Your task to perform on an android device: toggle location history Image 0: 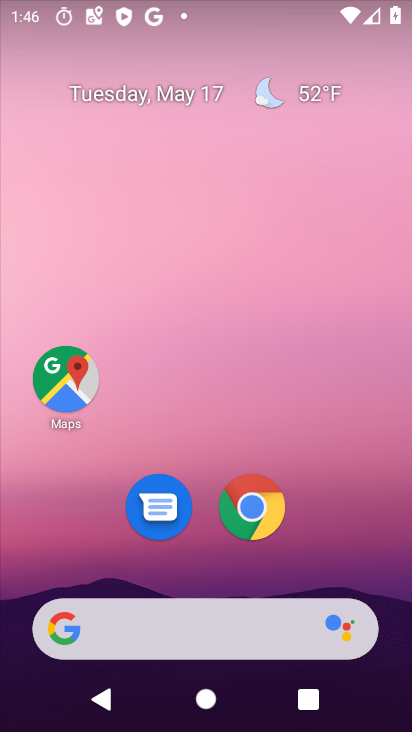
Step 0: drag from (205, 561) to (221, 135)
Your task to perform on an android device: toggle location history Image 1: 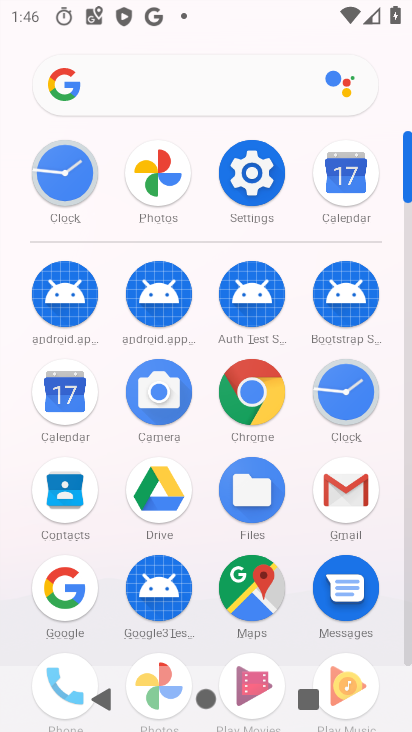
Step 1: click (248, 184)
Your task to perform on an android device: toggle location history Image 2: 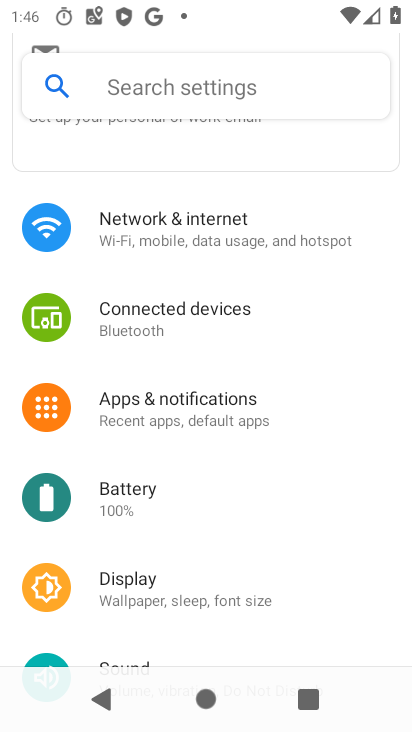
Step 2: drag from (182, 424) to (188, 82)
Your task to perform on an android device: toggle location history Image 3: 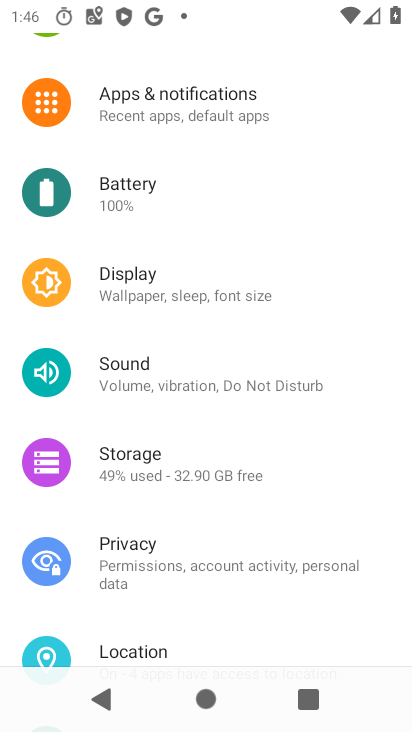
Step 3: click (133, 637)
Your task to perform on an android device: toggle location history Image 4: 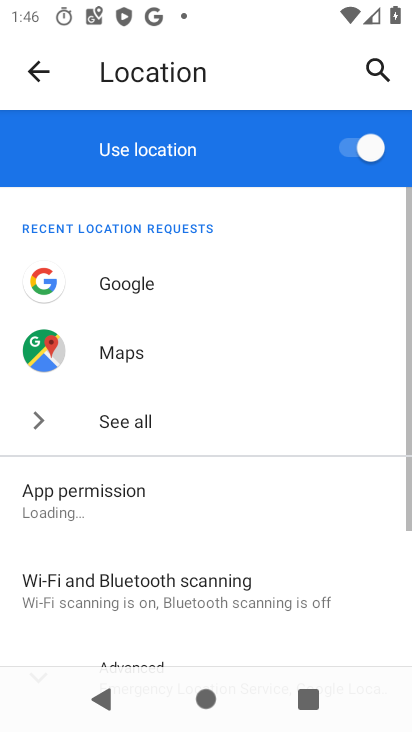
Step 4: drag from (131, 617) to (161, 232)
Your task to perform on an android device: toggle location history Image 5: 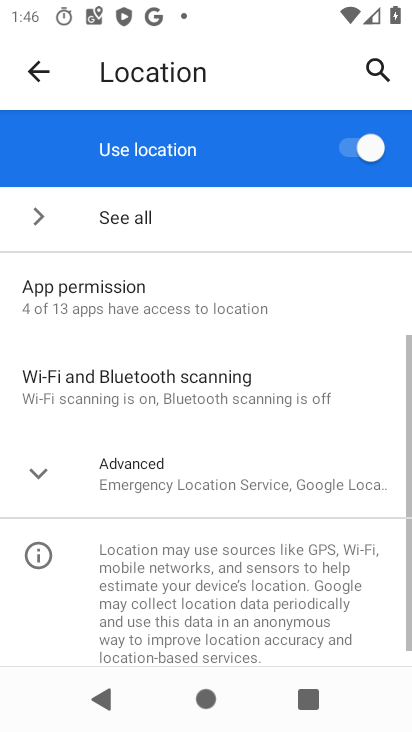
Step 5: click (146, 472)
Your task to perform on an android device: toggle location history Image 6: 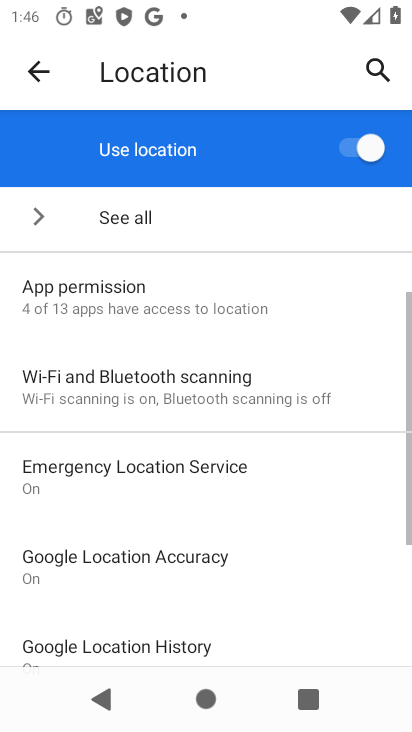
Step 6: drag from (205, 596) to (202, 405)
Your task to perform on an android device: toggle location history Image 7: 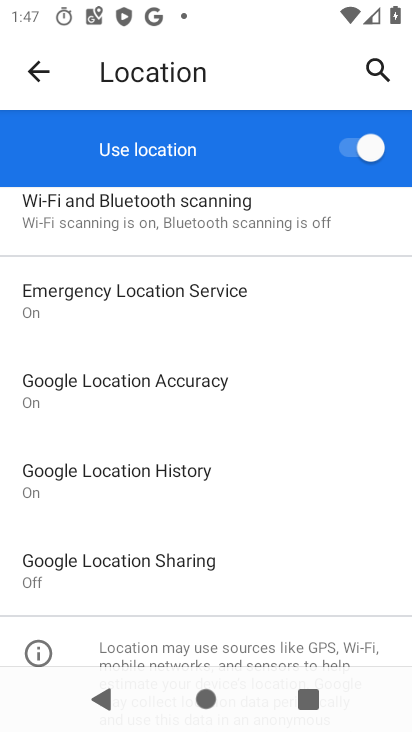
Step 7: click (123, 496)
Your task to perform on an android device: toggle location history Image 8: 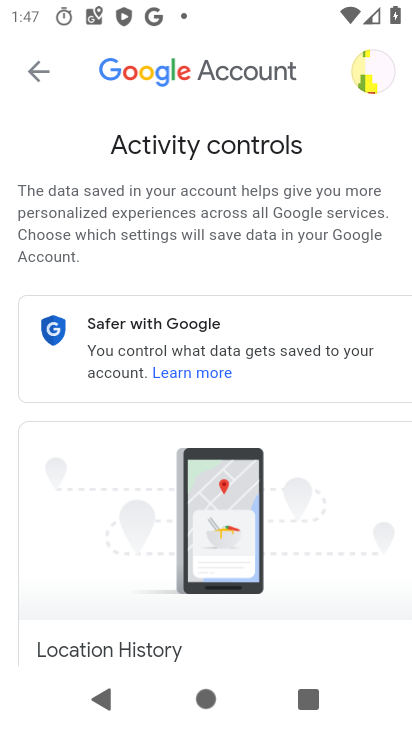
Step 8: drag from (252, 603) to (329, 230)
Your task to perform on an android device: toggle location history Image 9: 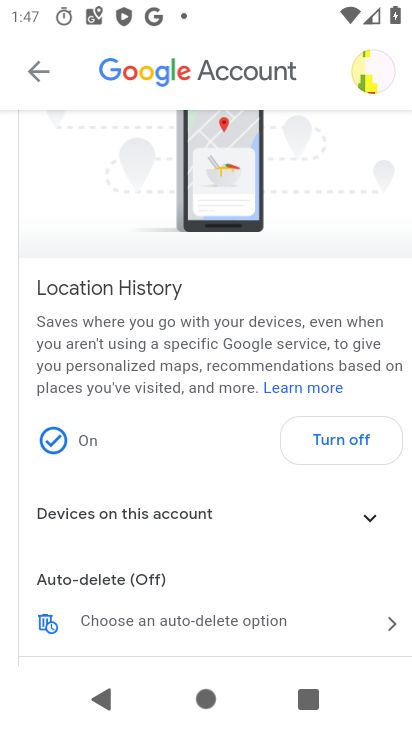
Step 9: click (346, 439)
Your task to perform on an android device: toggle location history Image 10: 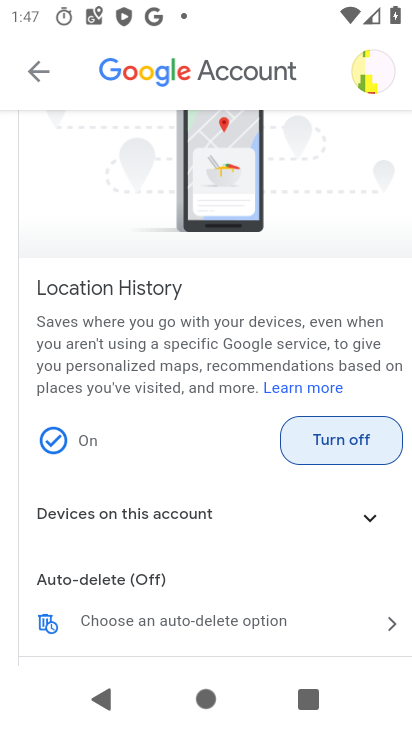
Step 10: click (346, 439)
Your task to perform on an android device: toggle location history Image 11: 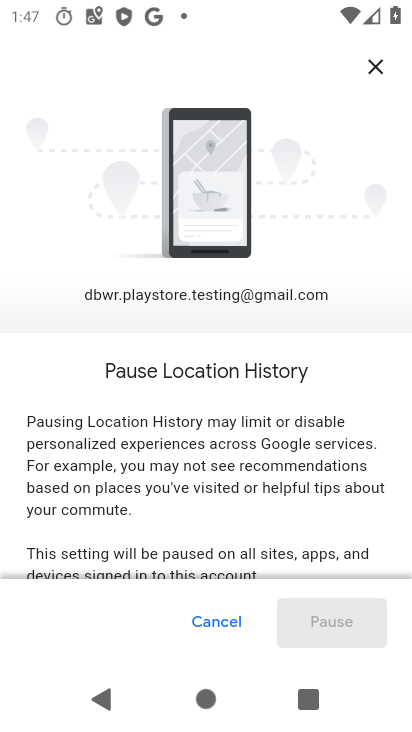
Step 11: drag from (342, 496) to (311, 16)
Your task to perform on an android device: toggle location history Image 12: 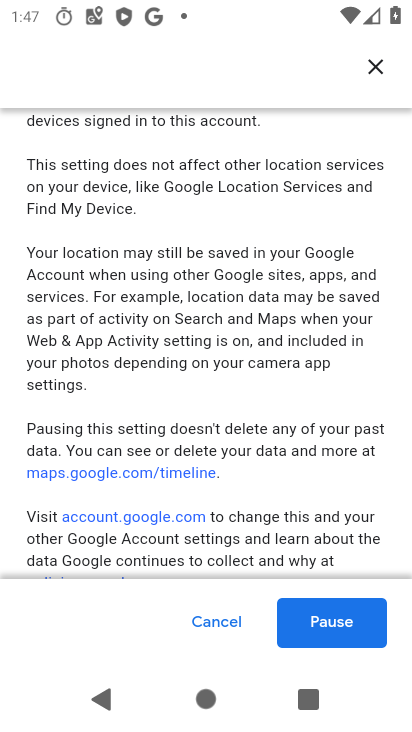
Step 12: click (319, 619)
Your task to perform on an android device: toggle location history Image 13: 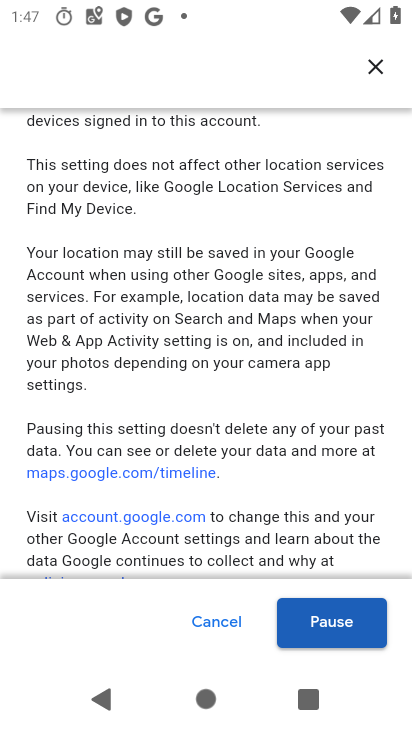
Step 13: click (319, 619)
Your task to perform on an android device: toggle location history Image 14: 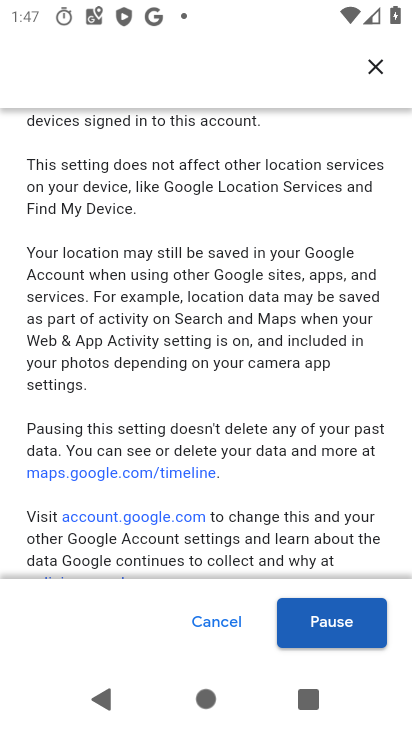
Step 14: click (349, 624)
Your task to perform on an android device: toggle location history Image 15: 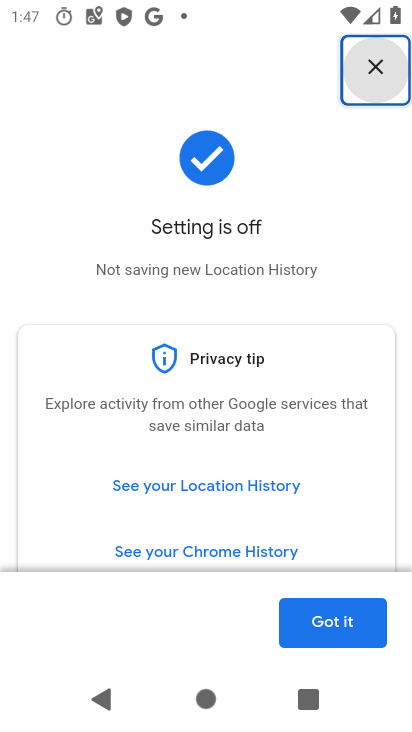
Step 15: click (336, 615)
Your task to perform on an android device: toggle location history Image 16: 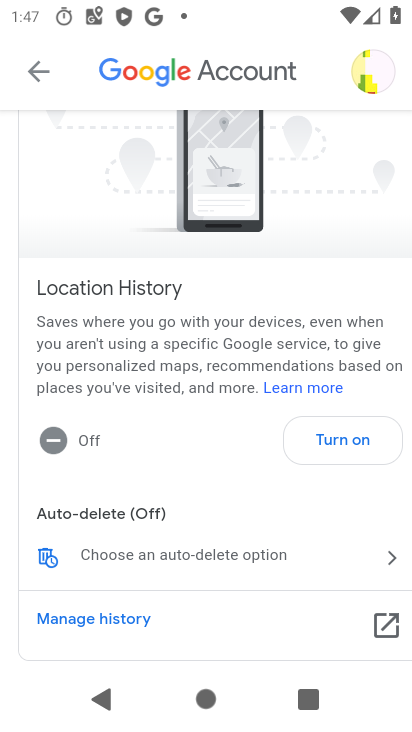
Step 16: task complete